Your task to perform on an android device: Search for "razer naga" on ebay.com, select the first entry, add it to the cart, then select checkout. Image 0: 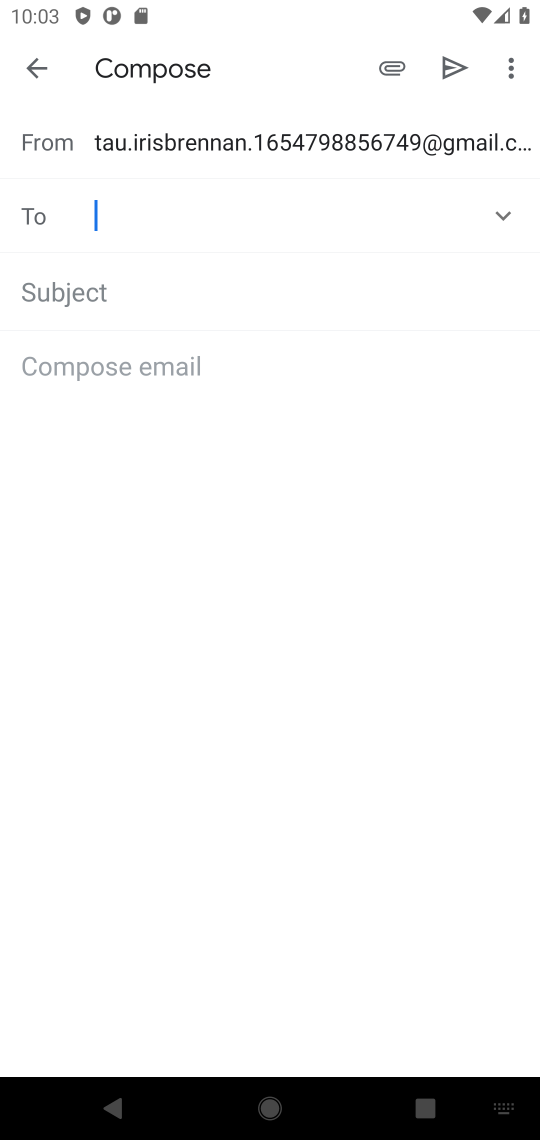
Step 0: press home button
Your task to perform on an android device: Search for "razer naga" on ebay.com, select the first entry, add it to the cart, then select checkout. Image 1: 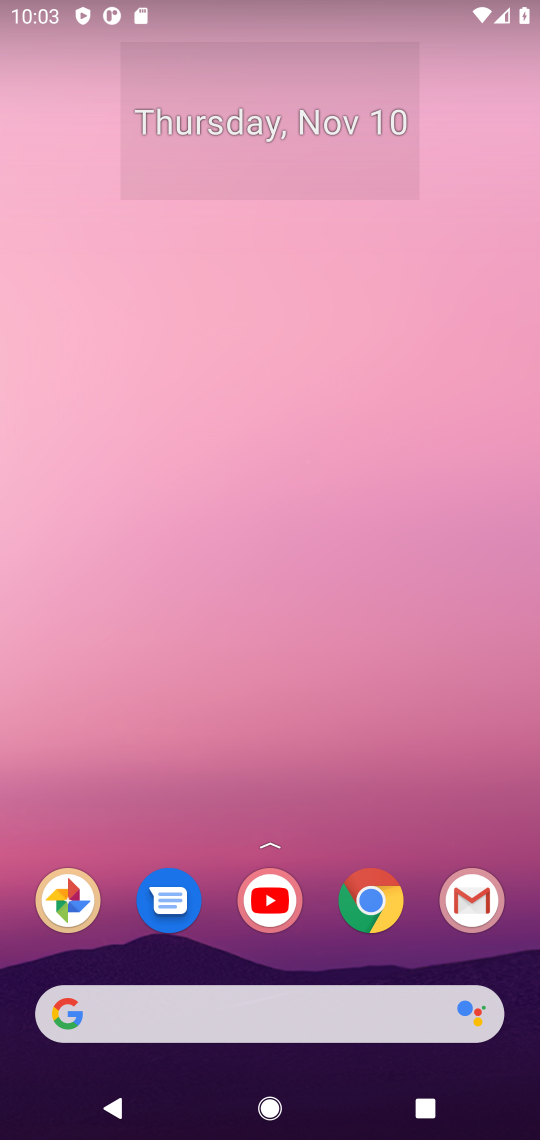
Step 1: click (377, 899)
Your task to perform on an android device: Search for "razer naga" on ebay.com, select the first entry, add it to the cart, then select checkout. Image 2: 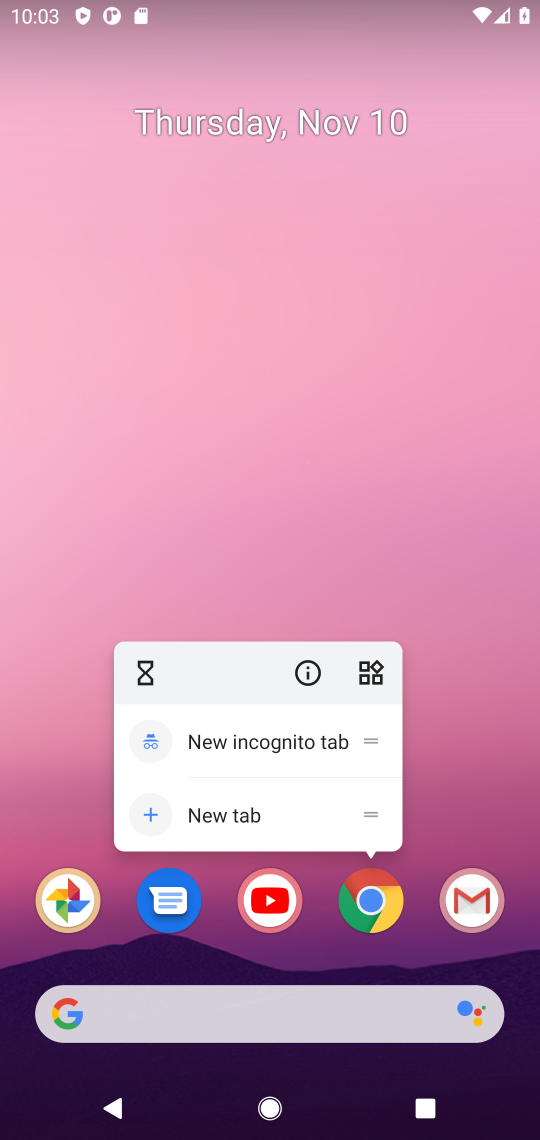
Step 2: click (377, 899)
Your task to perform on an android device: Search for "razer naga" on ebay.com, select the first entry, add it to the cart, then select checkout. Image 3: 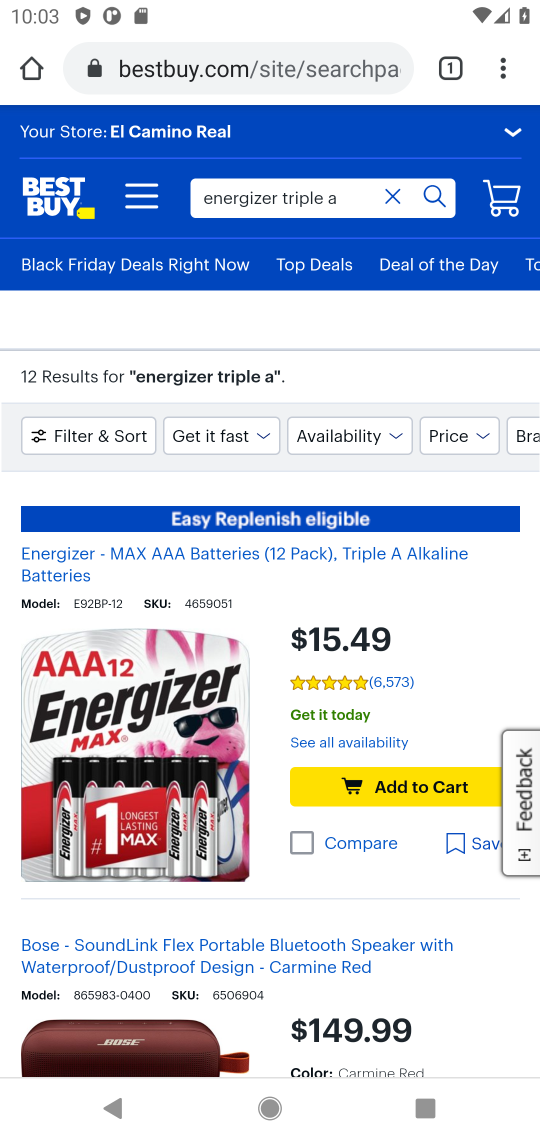
Step 3: click (305, 61)
Your task to perform on an android device: Search for "razer naga" on ebay.com, select the first entry, add it to the cart, then select checkout. Image 4: 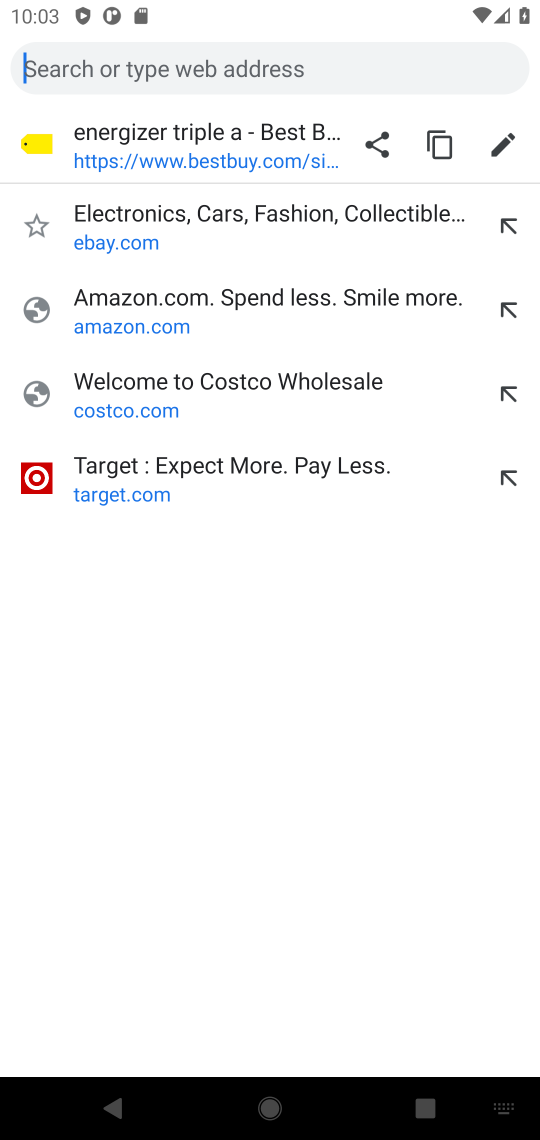
Step 4: click (98, 240)
Your task to perform on an android device: Search for "razer naga" on ebay.com, select the first entry, add it to the cart, then select checkout. Image 5: 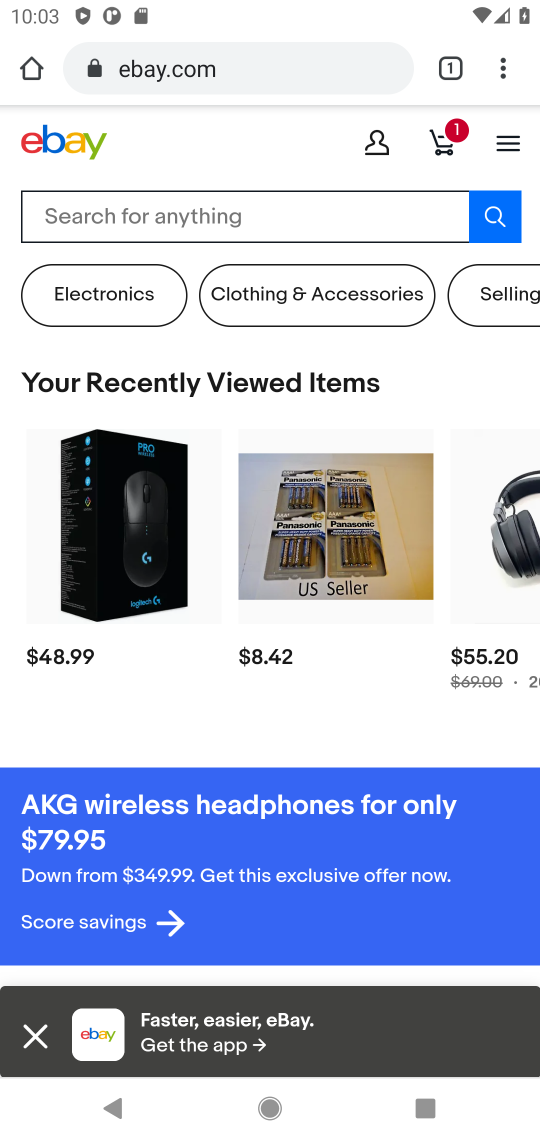
Step 5: click (181, 203)
Your task to perform on an android device: Search for "razer naga" on ebay.com, select the first entry, add it to the cart, then select checkout. Image 6: 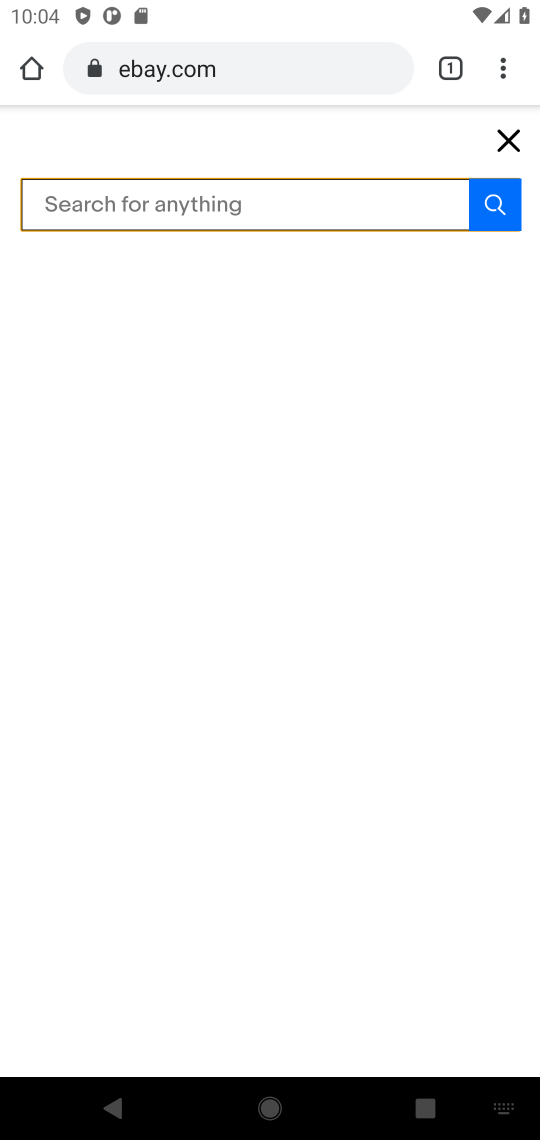
Step 6: type "razer naga"
Your task to perform on an android device: Search for "razer naga" on ebay.com, select the first entry, add it to the cart, then select checkout. Image 7: 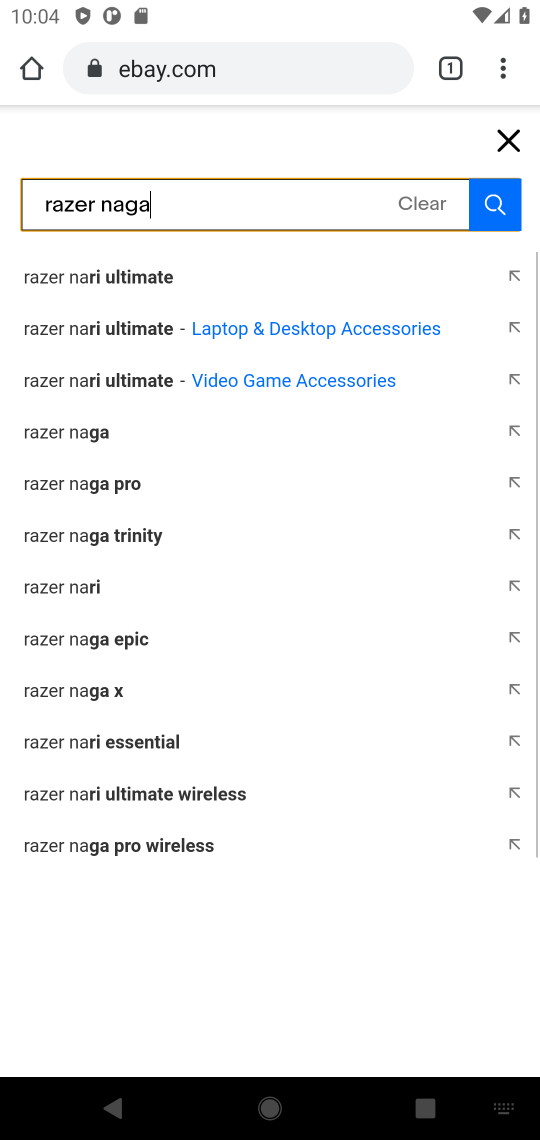
Step 7: press enter
Your task to perform on an android device: Search for "razer naga" on ebay.com, select the first entry, add it to the cart, then select checkout. Image 8: 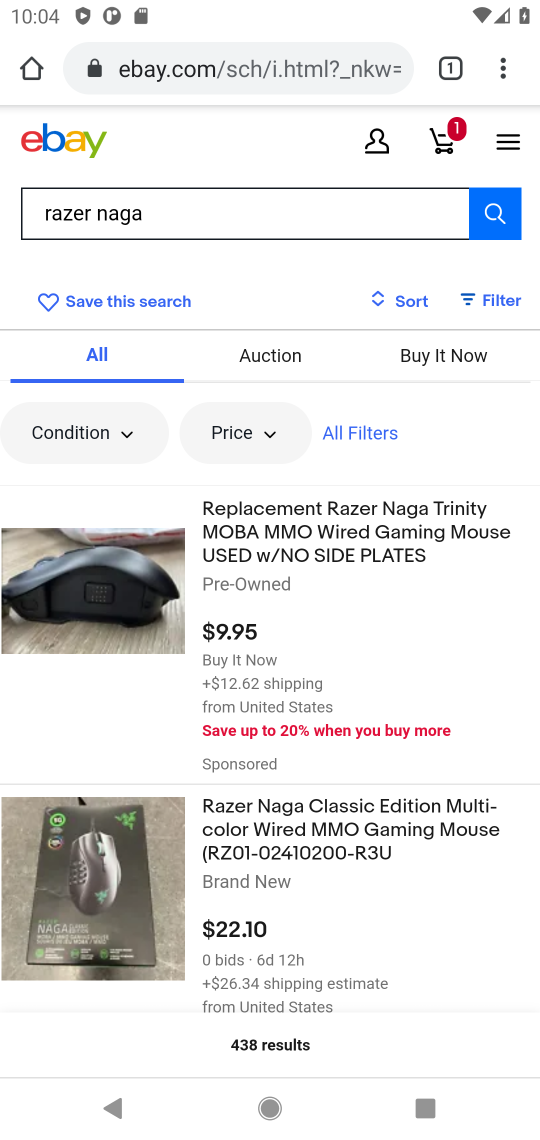
Step 8: click (381, 606)
Your task to perform on an android device: Search for "razer naga" on ebay.com, select the first entry, add it to the cart, then select checkout. Image 9: 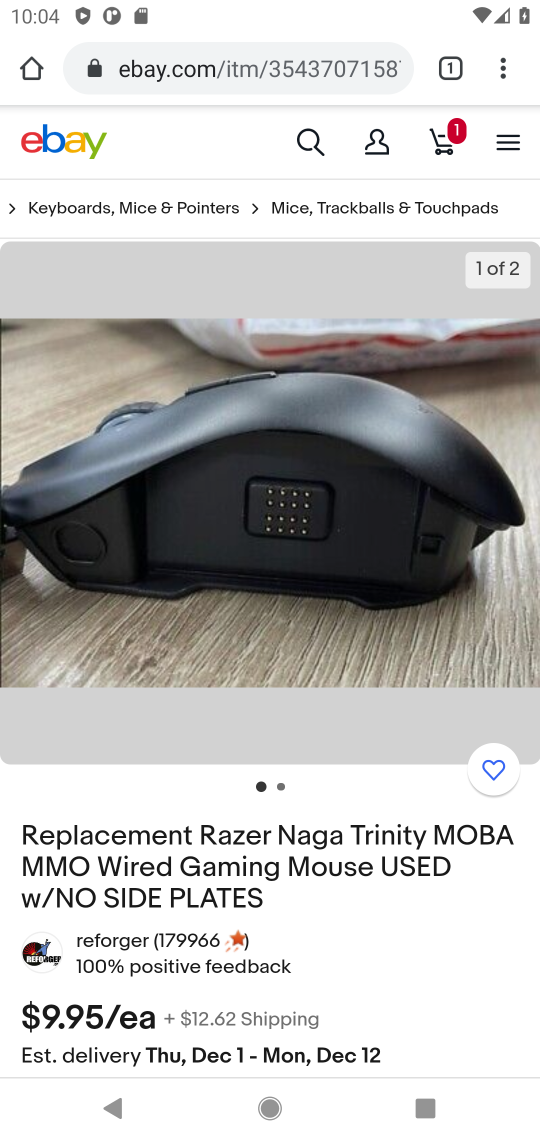
Step 9: drag from (312, 953) to (502, 253)
Your task to perform on an android device: Search for "razer naga" on ebay.com, select the first entry, add it to the cart, then select checkout. Image 10: 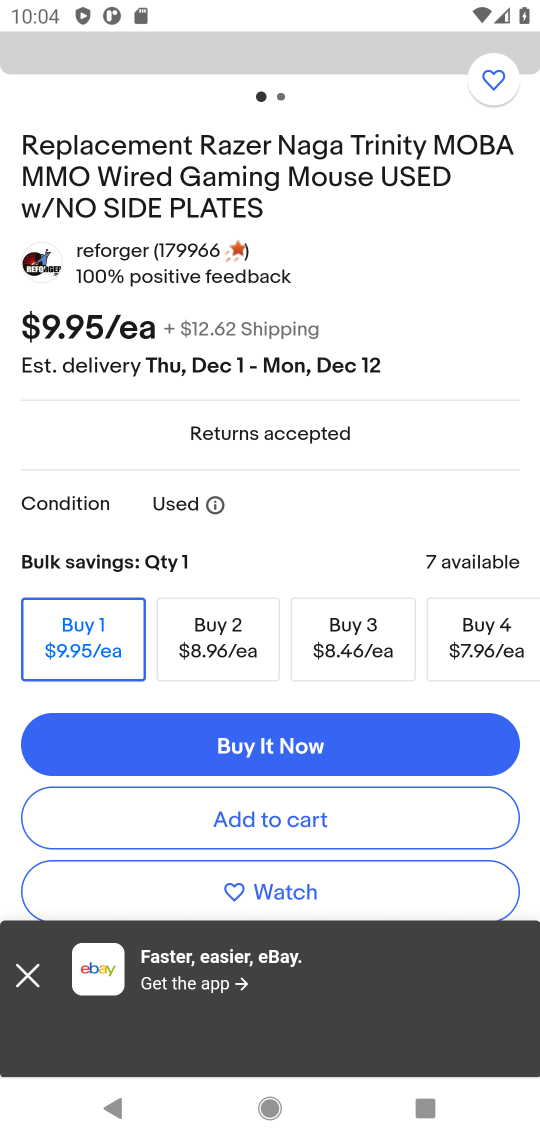
Step 10: click (262, 815)
Your task to perform on an android device: Search for "razer naga" on ebay.com, select the first entry, add it to the cart, then select checkout. Image 11: 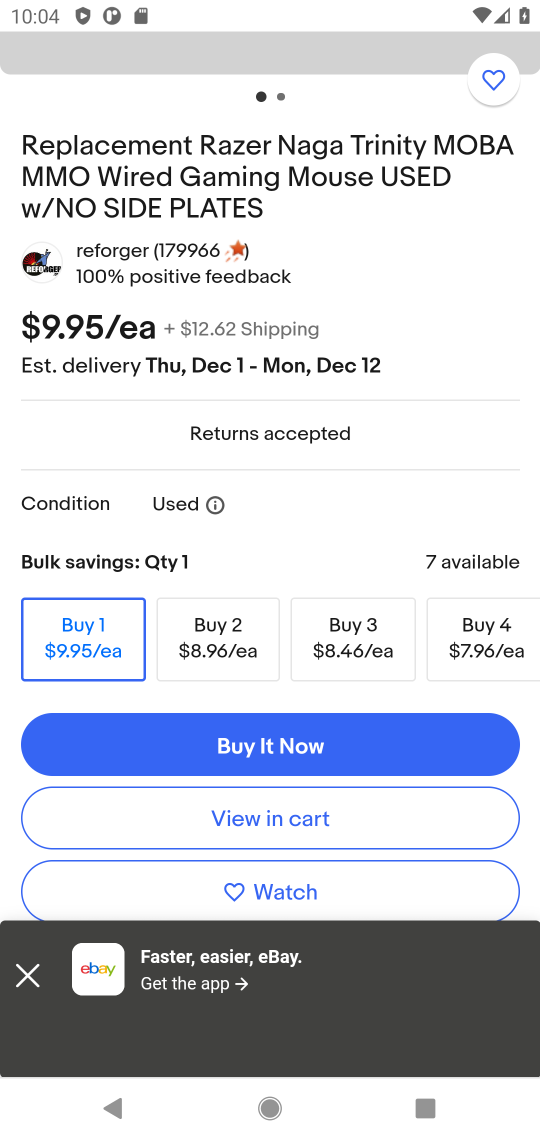
Step 11: click (272, 824)
Your task to perform on an android device: Search for "razer naga" on ebay.com, select the first entry, add it to the cart, then select checkout. Image 12: 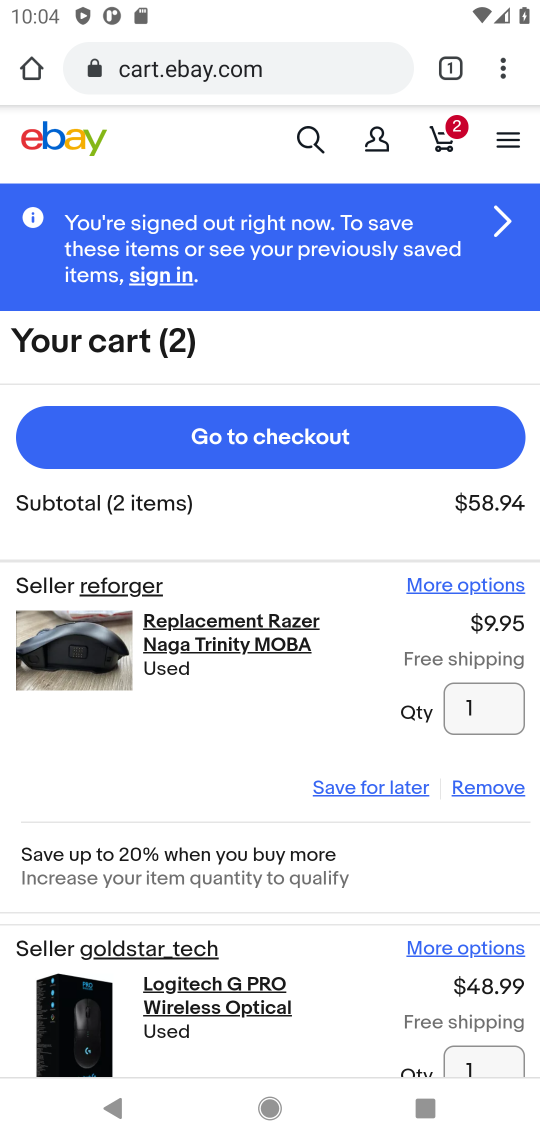
Step 12: drag from (376, 993) to (538, 665)
Your task to perform on an android device: Search for "razer naga" on ebay.com, select the first entry, add it to the cart, then select checkout. Image 13: 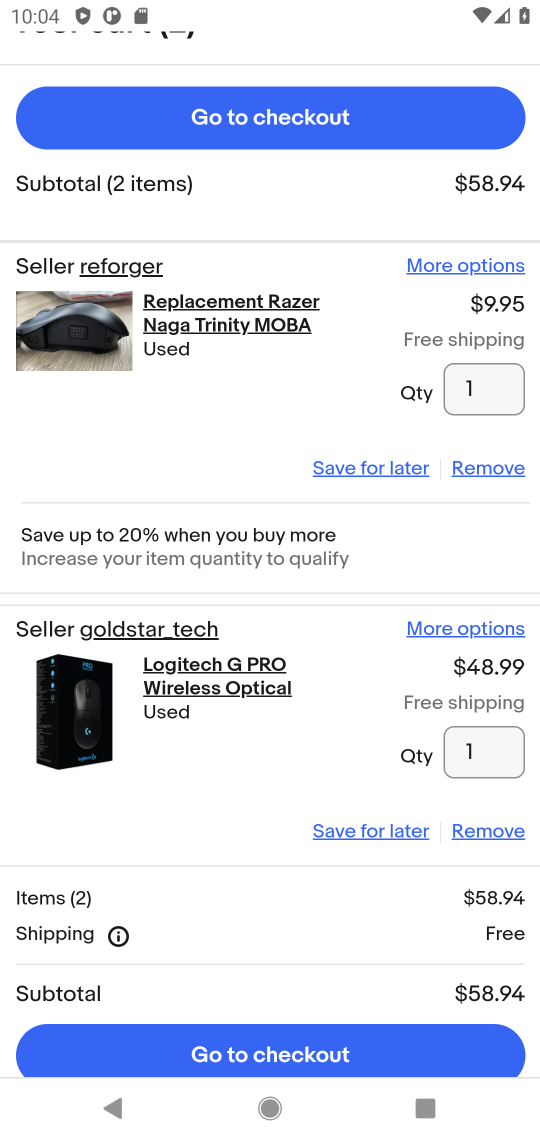
Step 13: click (492, 830)
Your task to perform on an android device: Search for "razer naga" on ebay.com, select the first entry, add it to the cart, then select checkout. Image 14: 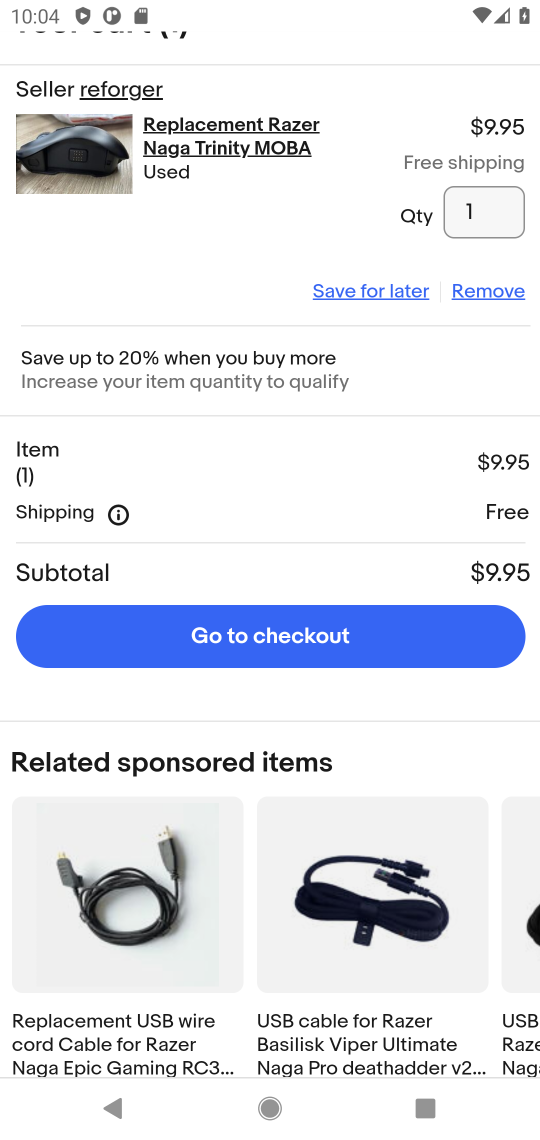
Step 14: click (303, 632)
Your task to perform on an android device: Search for "razer naga" on ebay.com, select the first entry, add it to the cart, then select checkout. Image 15: 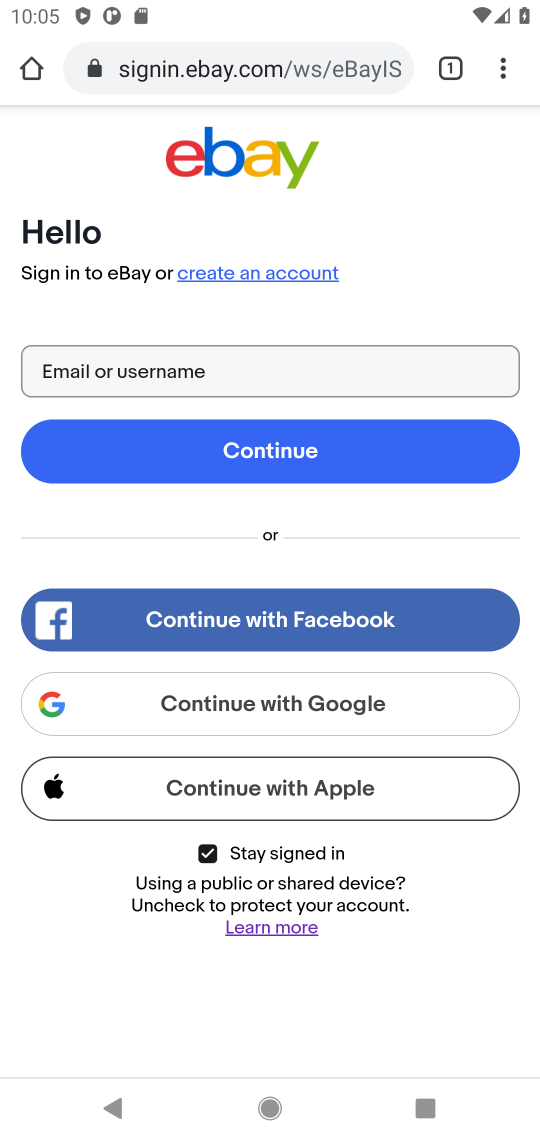
Step 15: task complete